Your task to perform on an android device: Open display settings Image 0: 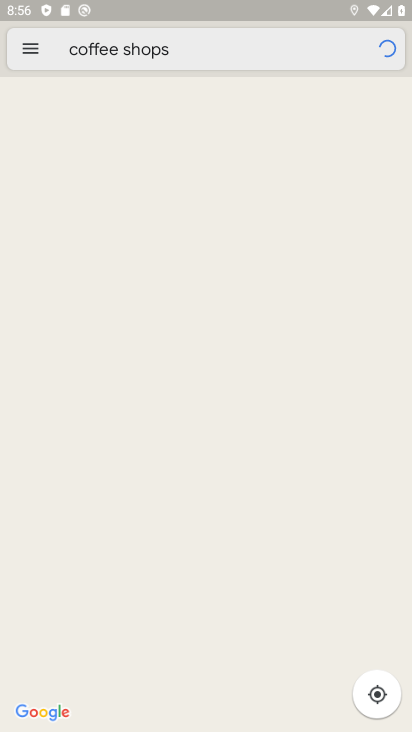
Step 0: press home button
Your task to perform on an android device: Open display settings Image 1: 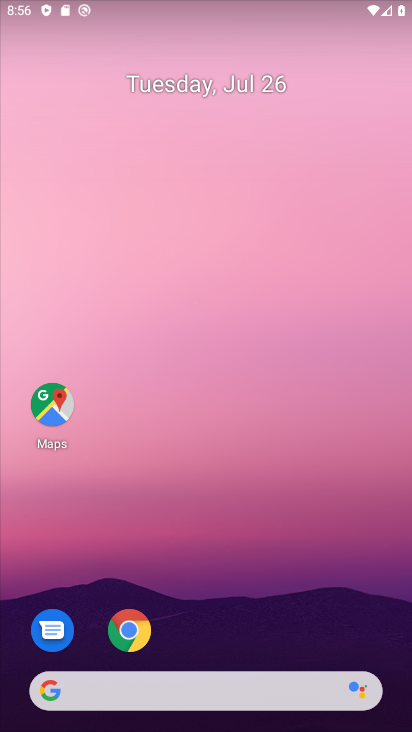
Step 1: drag from (297, 579) to (147, 0)
Your task to perform on an android device: Open display settings Image 2: 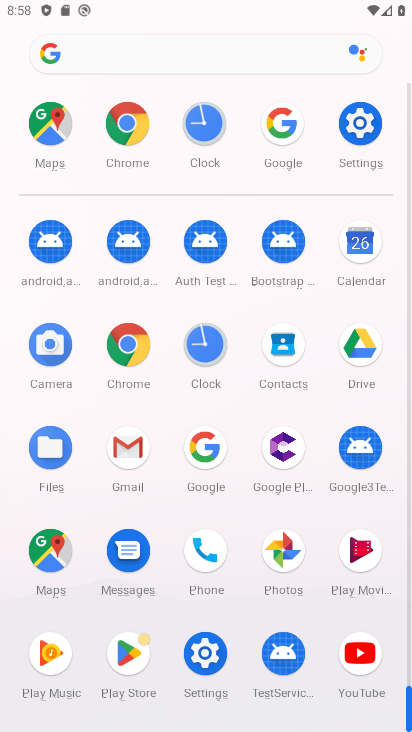
Step 2: click (355, 117)
Your task to perform on an android device: Open display settings Image 3: 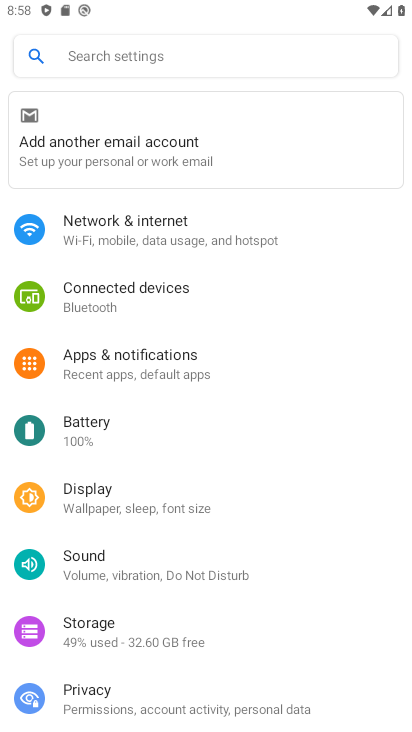
Step 3: click (106, 504)
Your task to perform on an android device: Open display settings Image 4: 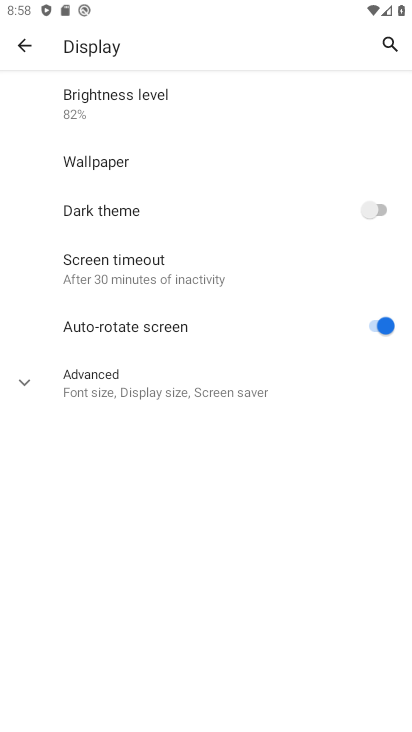
Step 4: task complete